Your task to perform on an android device: turn on the 12-hour format for clock Image 0: 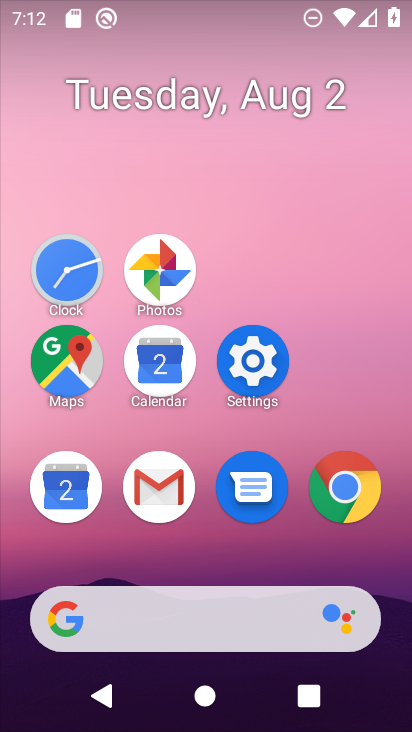
Step 0: click (72, 277)
Your task to perform on an android device: turn on the 12-hour format for clock Image 1: 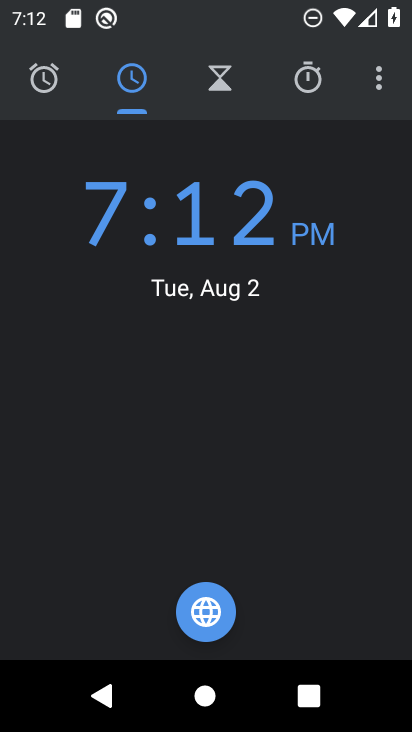
Step 1: click (387, 80)
Your task to perform on an android device: turn on the 12-hour format for clock Image 2: 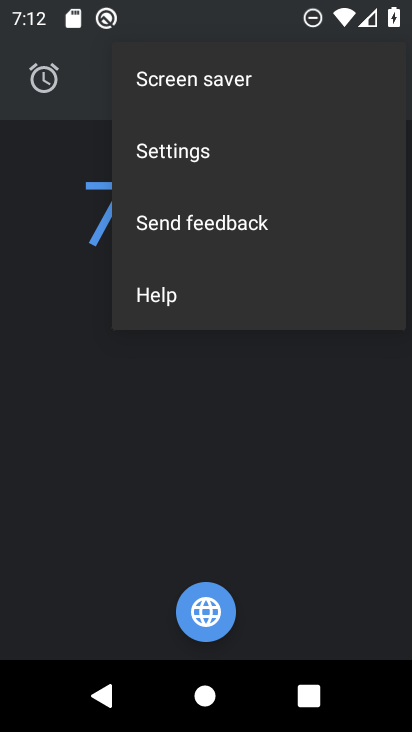
Step 2: click (192, 146)
Your task to perform on an android device: turn on the 12-hour format for clock Image 3: 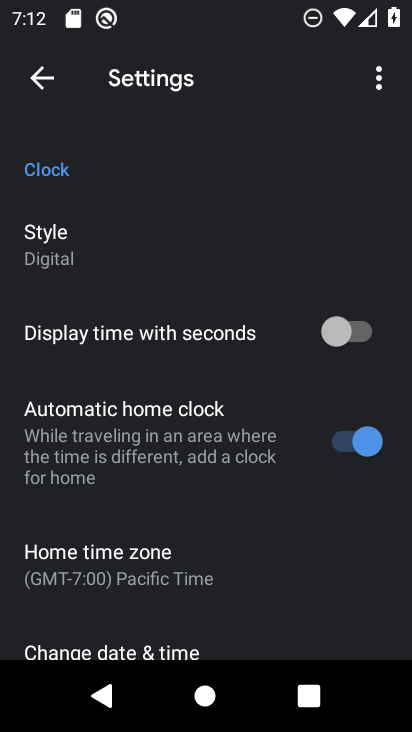
Step 3: drag from (291, 566) to (278, 305)
Your task to perform on an android device: turn on the 12-hour format for clock Image 4: 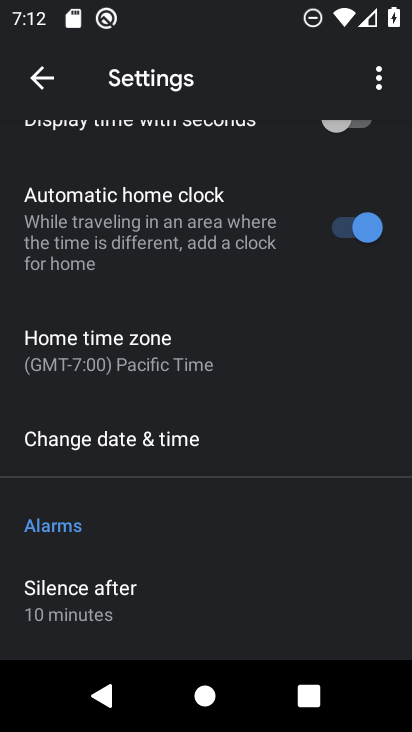
Step 4: click (84, 440)
Your task to perform on an android device: turn on the 12-hour format for clock Image 5: 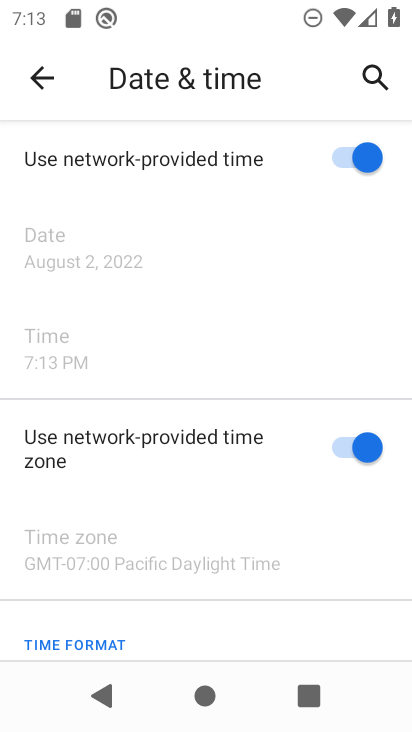
Step 5: task complete